Your task to perform on an android device: Open the Play Movies app and select the watchlist tab. Image 0: 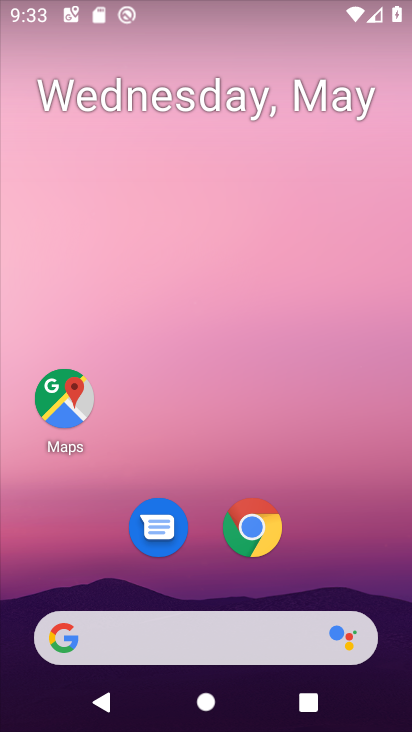
Step 0: drag from (206, 563) to (204, 34)
Your task to perform on an android device: Open the Play Movies app and select the watchlist tab. Image 1: 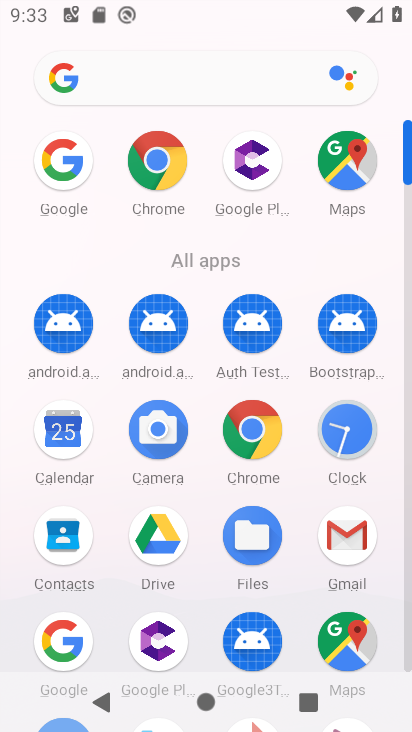
Step 1: drag from (294, 536) to (331, 135)
Your task to perform on an android device: Open the Play Movies app and select the watchlist tab. Image 2: 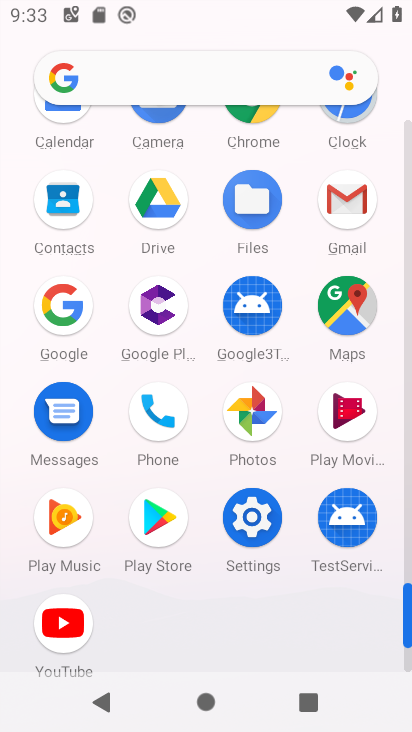
Step 2: click (352, 408)
Your task to perform on an android device: Open the Play Movies app and select the watchlist tab. Image 3: 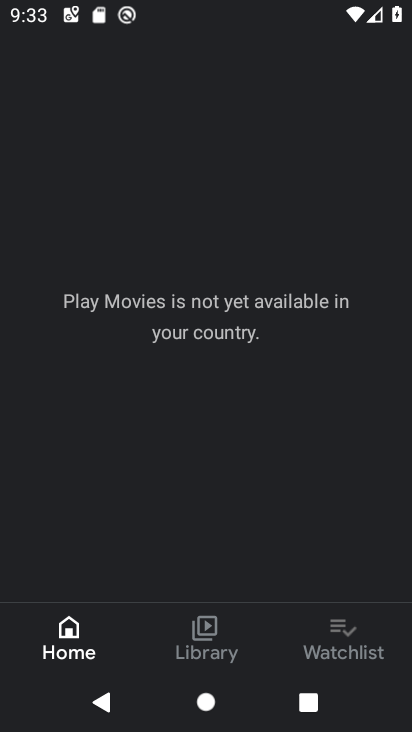
Step 3: click (354, 624)
Your task to perform on an android device: Open the Play Movies app and select the watchlist tab. Image 4: 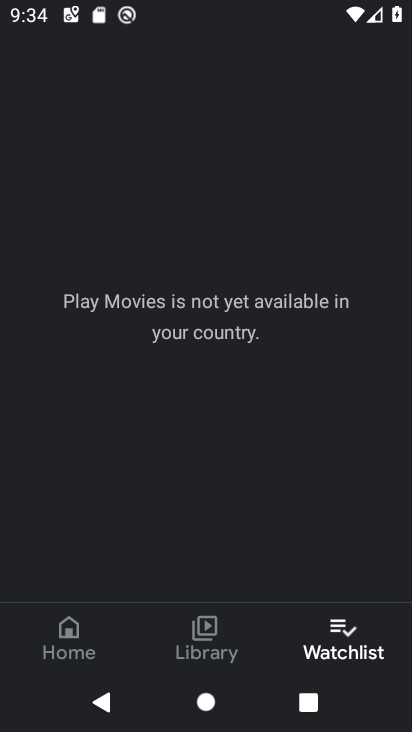
Step 4: task complete